Your task to perform on an android device: Do I have any events this weekend? Image 0: 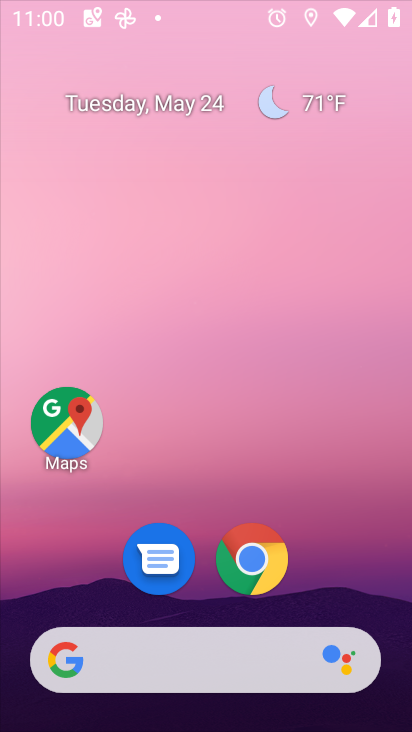
Step 0: click (230, 26)
Your task to perform on an android device: Do I have any events this weekend? Image 1: 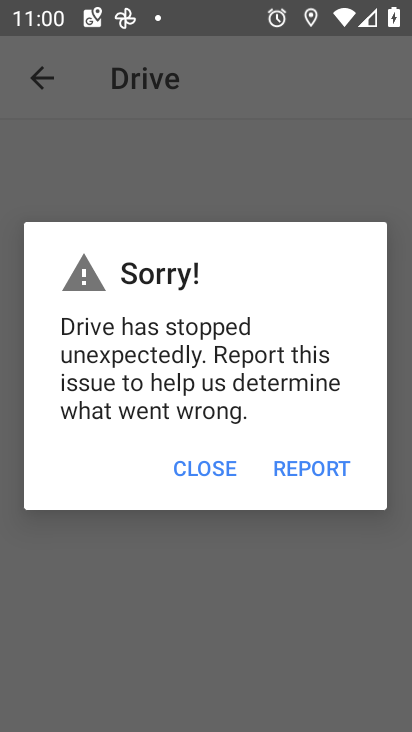
Step 1: press home button
Your task to perform on an android device: Do I have any events this weekend? Image 2: 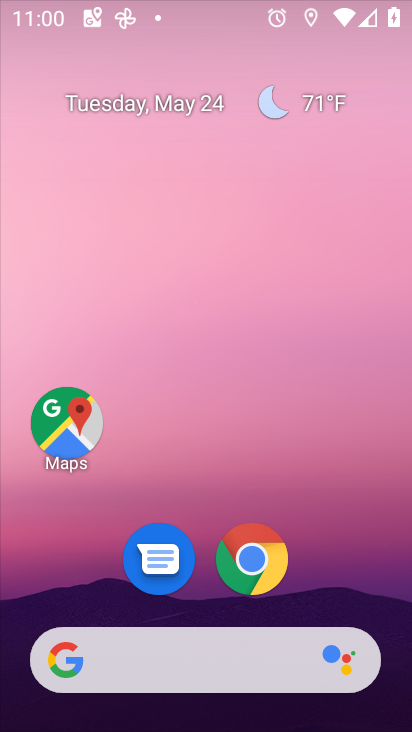
Step 2: drag from (380, 647) to (233, 14)
Your task to perform on an android device: Do I have any events this weekend? Image 3: 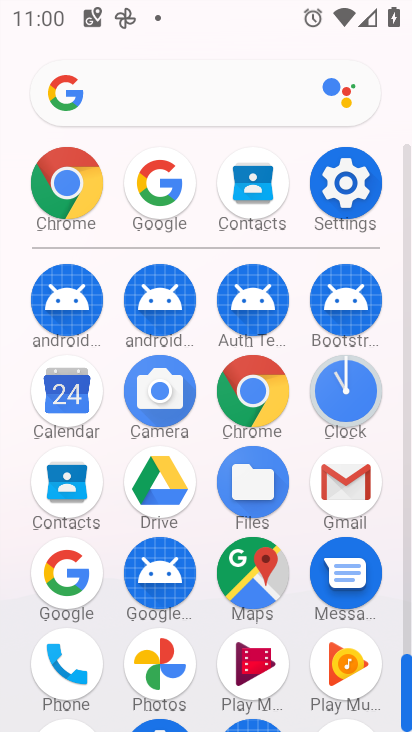
Step 3: click (64, 408)
Your task to perform on an android device: Do I have any events this weekend? Image 4: 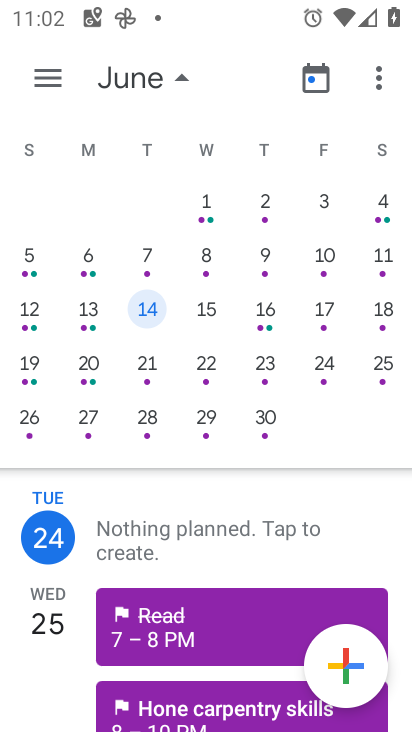
Step 4: task complete